Your task to perform on an android device: add a contact Image 0: 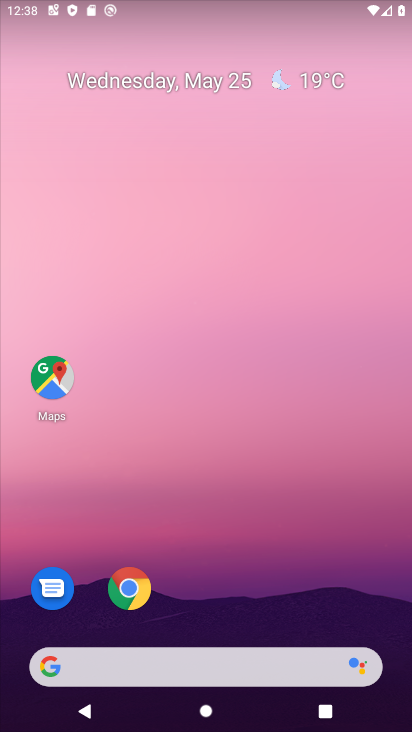
Step 0: drag from (164, 631) to (269, 101)
Your task to perform on an android device: add a contact Image 1: 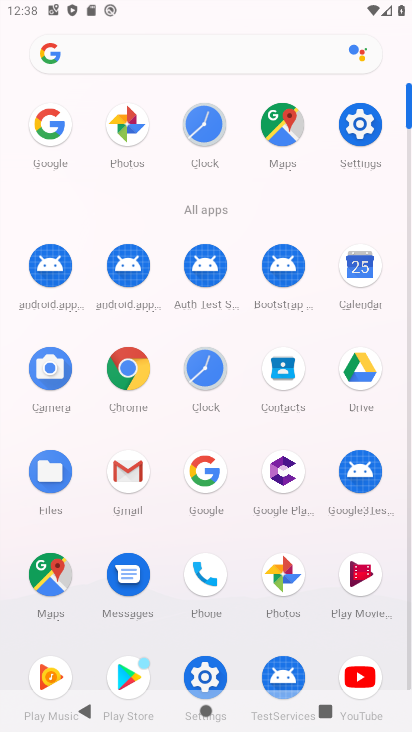
Step 1: click (273, 378)
Your task to perform on an android device: add a contact Image 2: 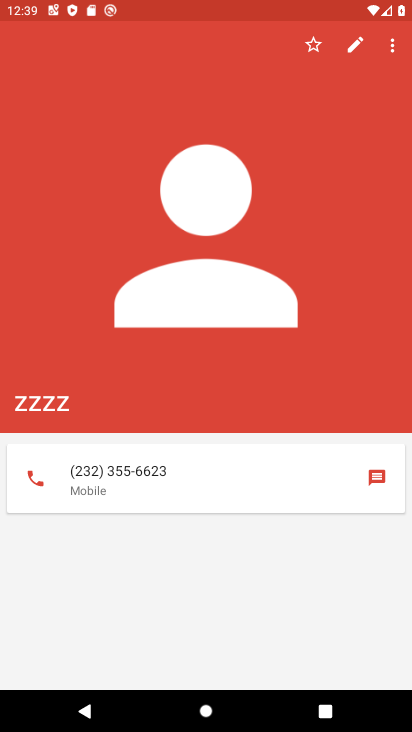
Step 2: press back button
Your task to perform on an android device: add a contact Image 3: 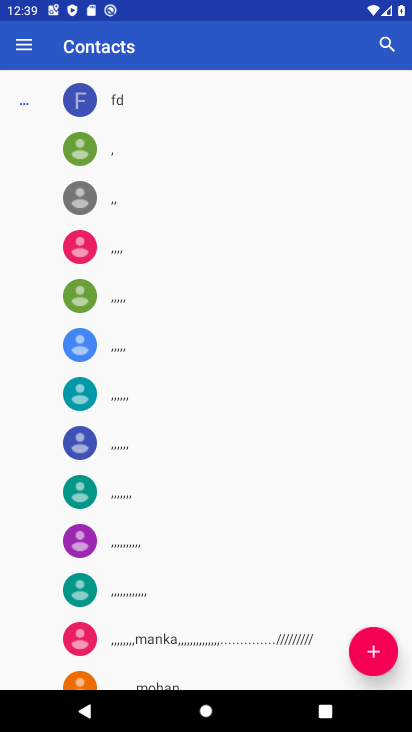
Step 3: click (374, 661)
Your task to perform on an android device: add a contact Image 4: 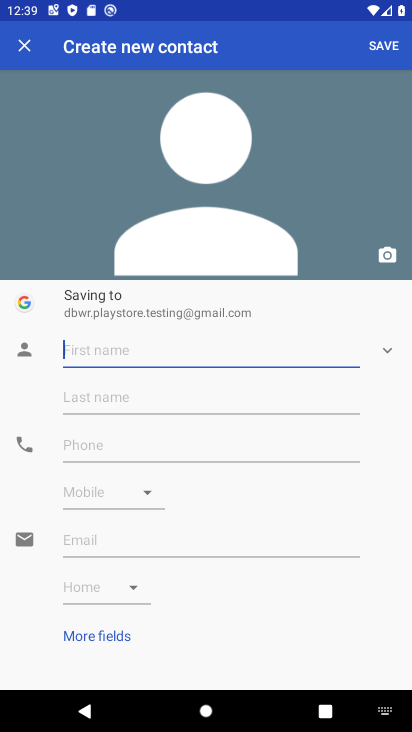
Step 4: type "kjkjkjk"
Your task to perform on an android device: add a contact Image 5: 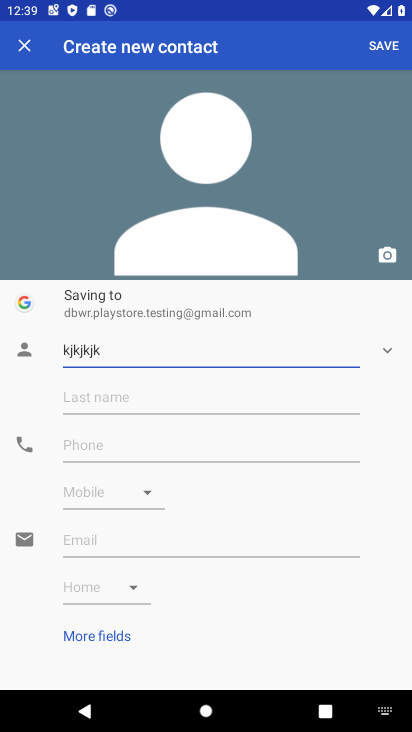
Step 5: click (93, 452)
Your task to perform on an android device: add a contact Image 6: 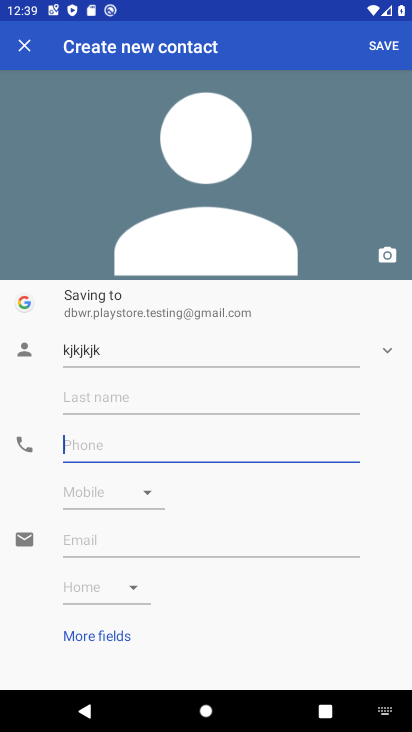
Step 6: type "56565654"
Your task to perform on an android device: add a contact Image 7: 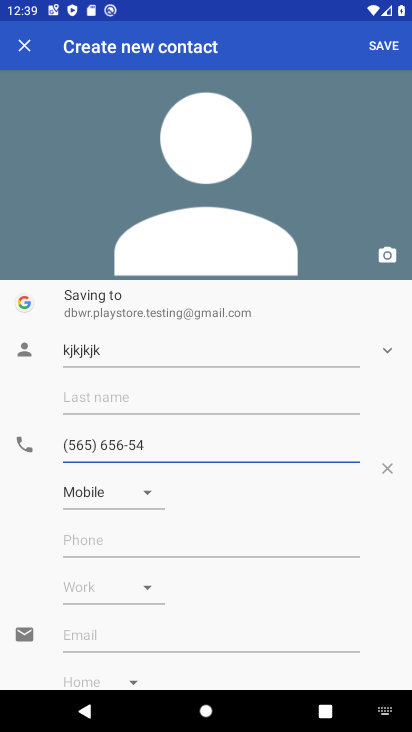
Step 7: type "23"
Your task to perform on an android device: add a contact Image 8: 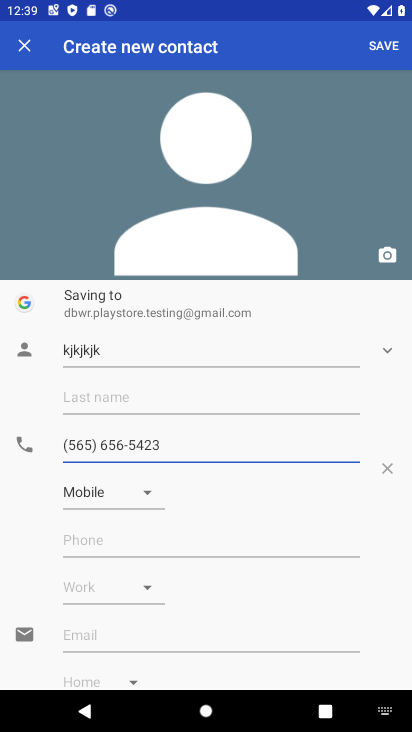
Step 8: click (398, 48)
Your task to perform on an android device: add a contact Image 9: 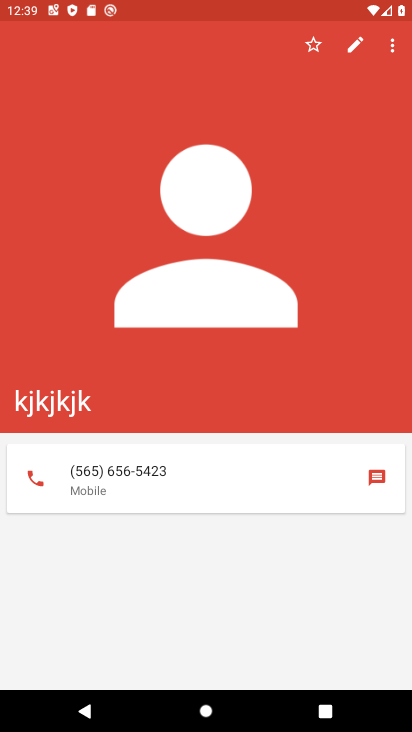
Step 9: task complete